Your task to perform on an android device: turn off priority inbox in the gmail app Image 0: 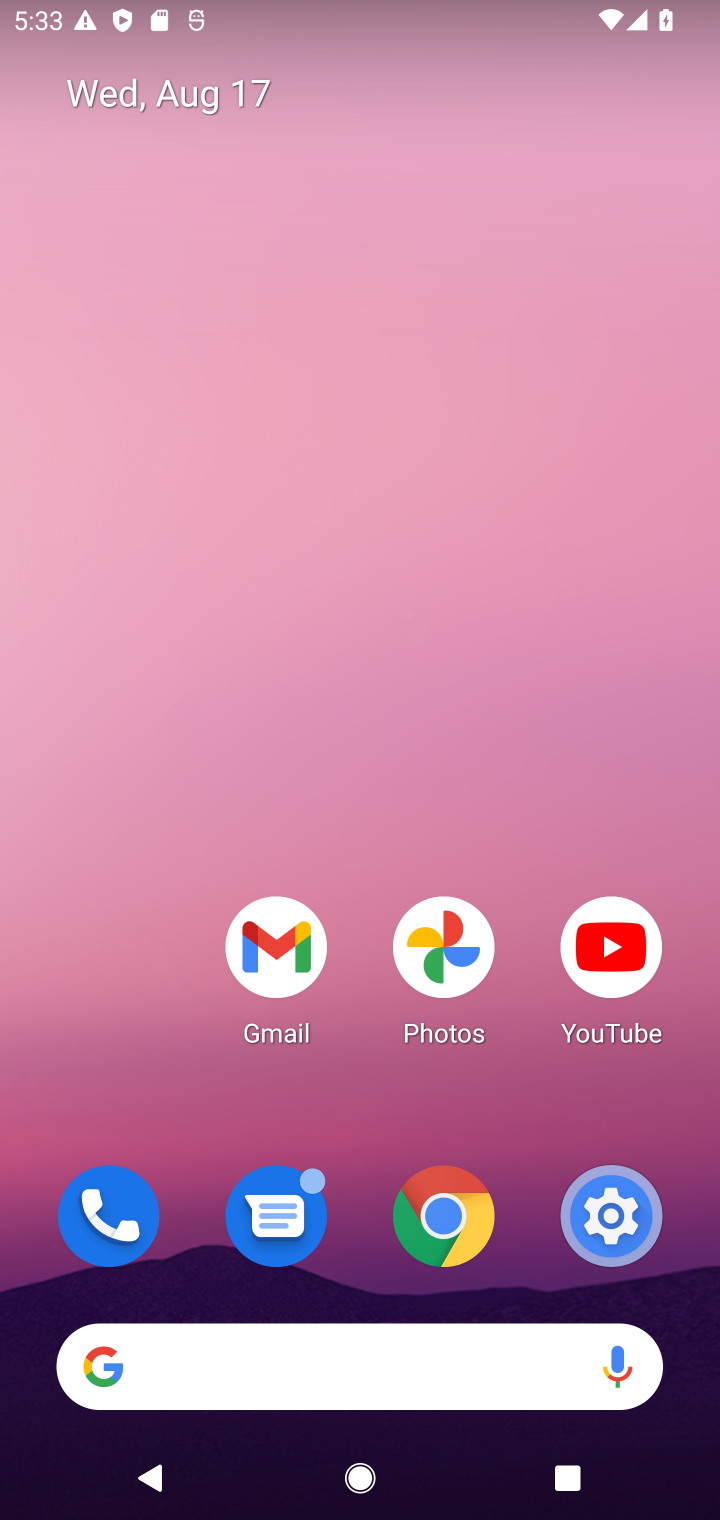
Step 0: drag from (389, 1294) to (371, 0)
Your task to perform on an android device: turn off priority inbox in the gmail app Image 1: 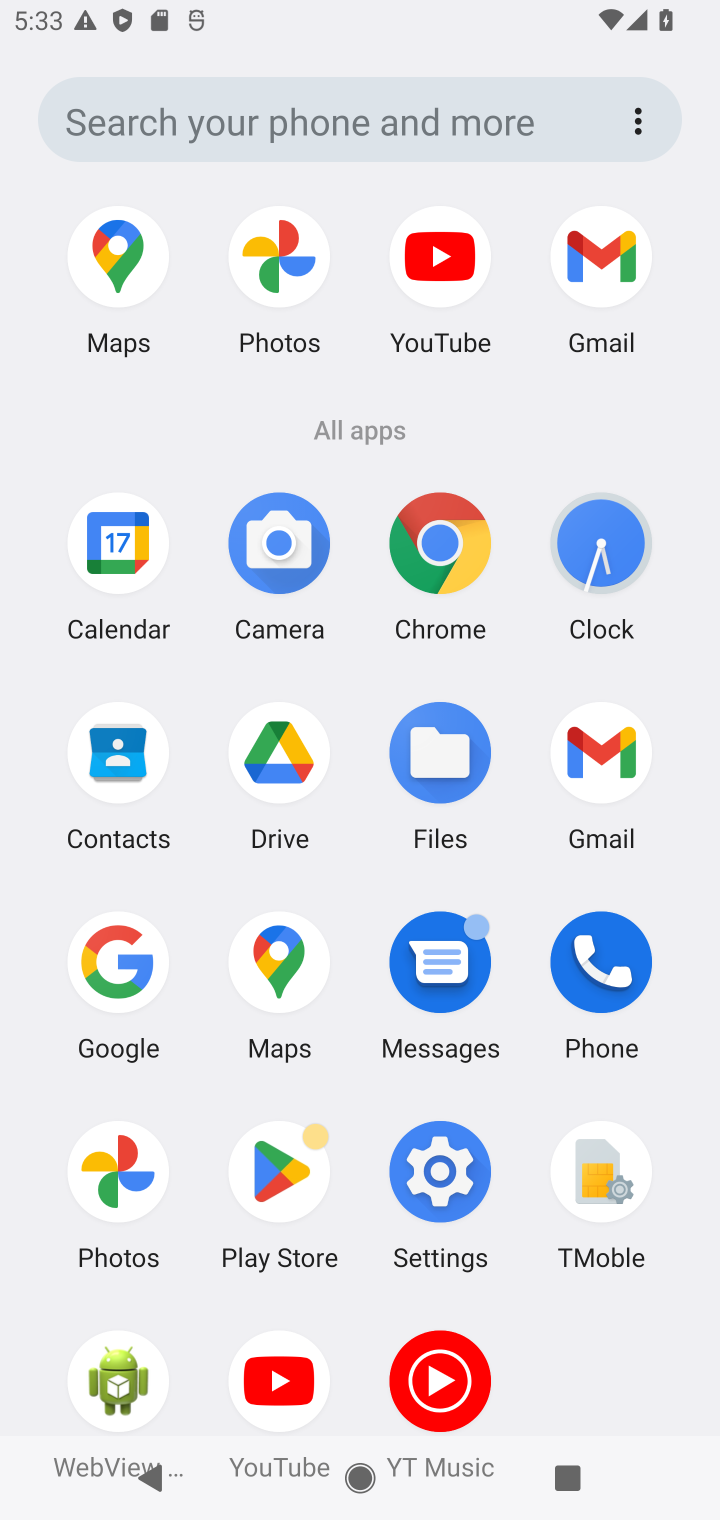
Step 1: click (605, 733)
Your task to perform on an android device: turn off priority inbox in the gmail app Image 2: 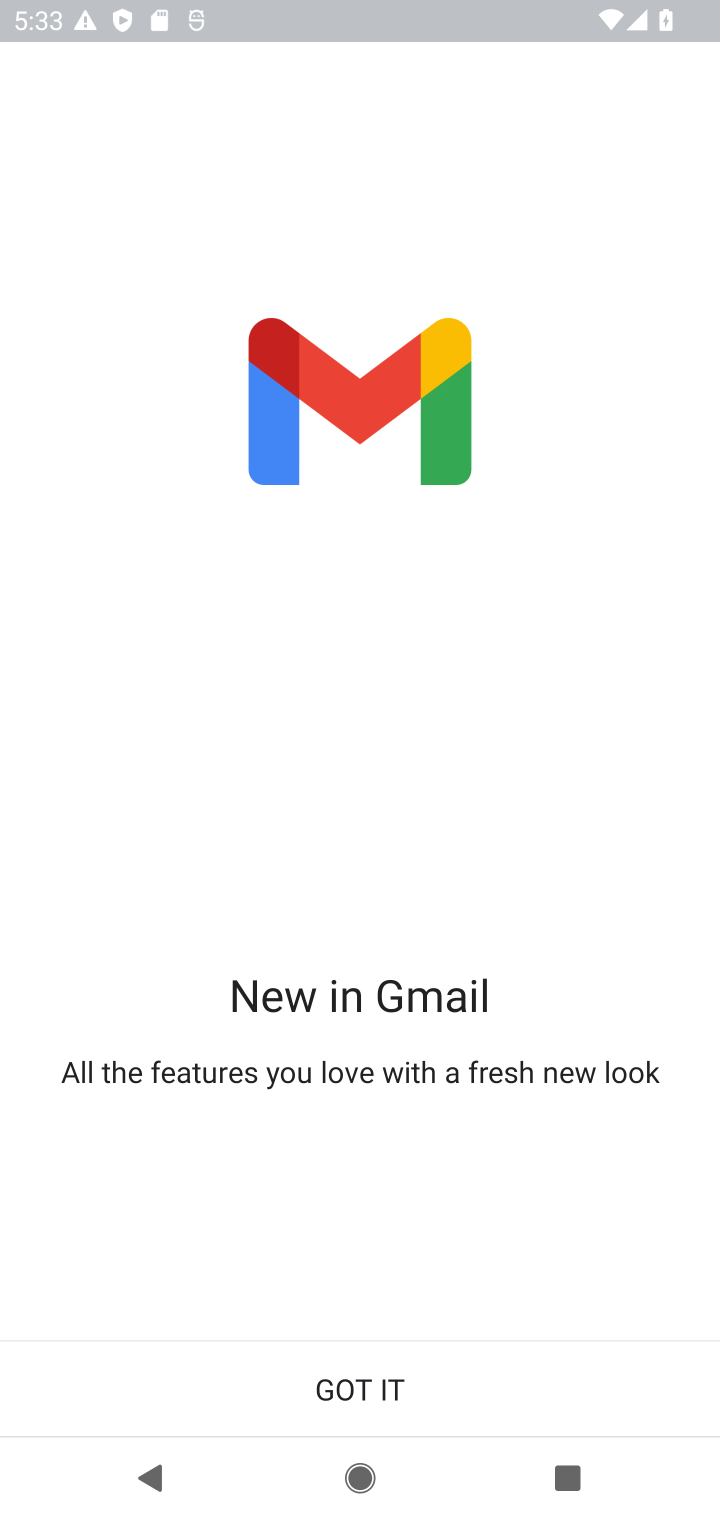
Step 2: click (356, 1389)
Your task to perform on an android device: turn off priority inbox in the gmail app Image 3: 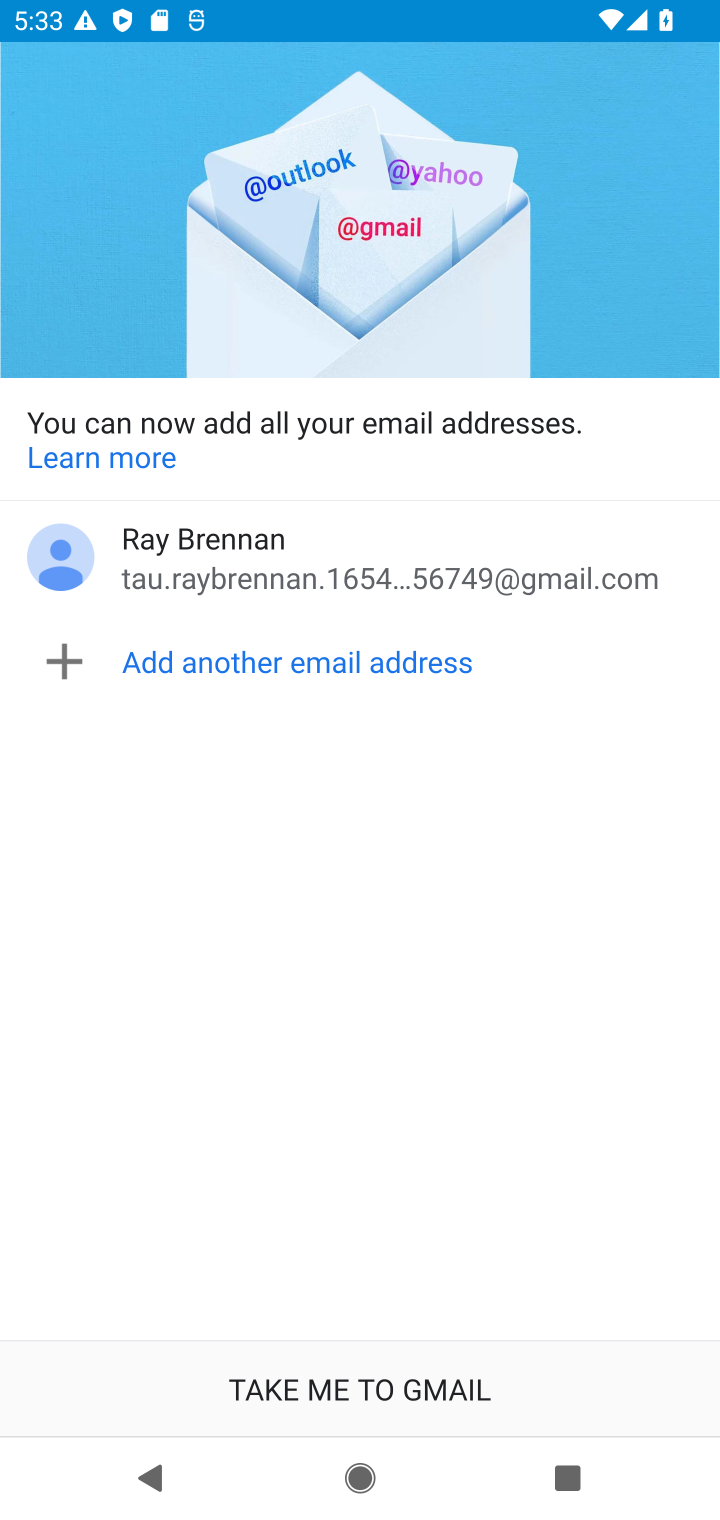
Step 3: click (333, 1373)
Your task to perform on an android device: turn off priority inbox in the gmail app Image 4: 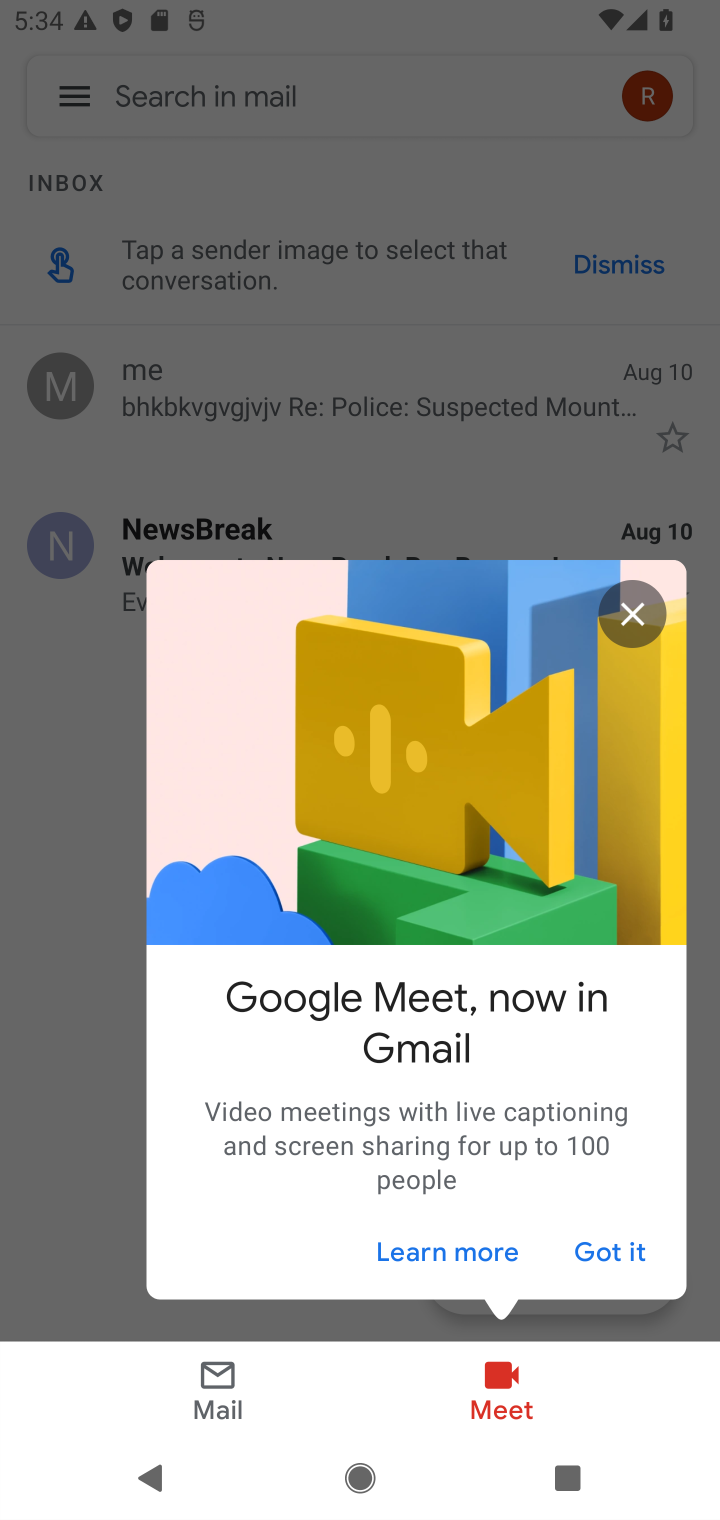
Step 4: click (640, 606)
Your task to perform on an android device: turn off priority inbox in the gmail app Image 5: 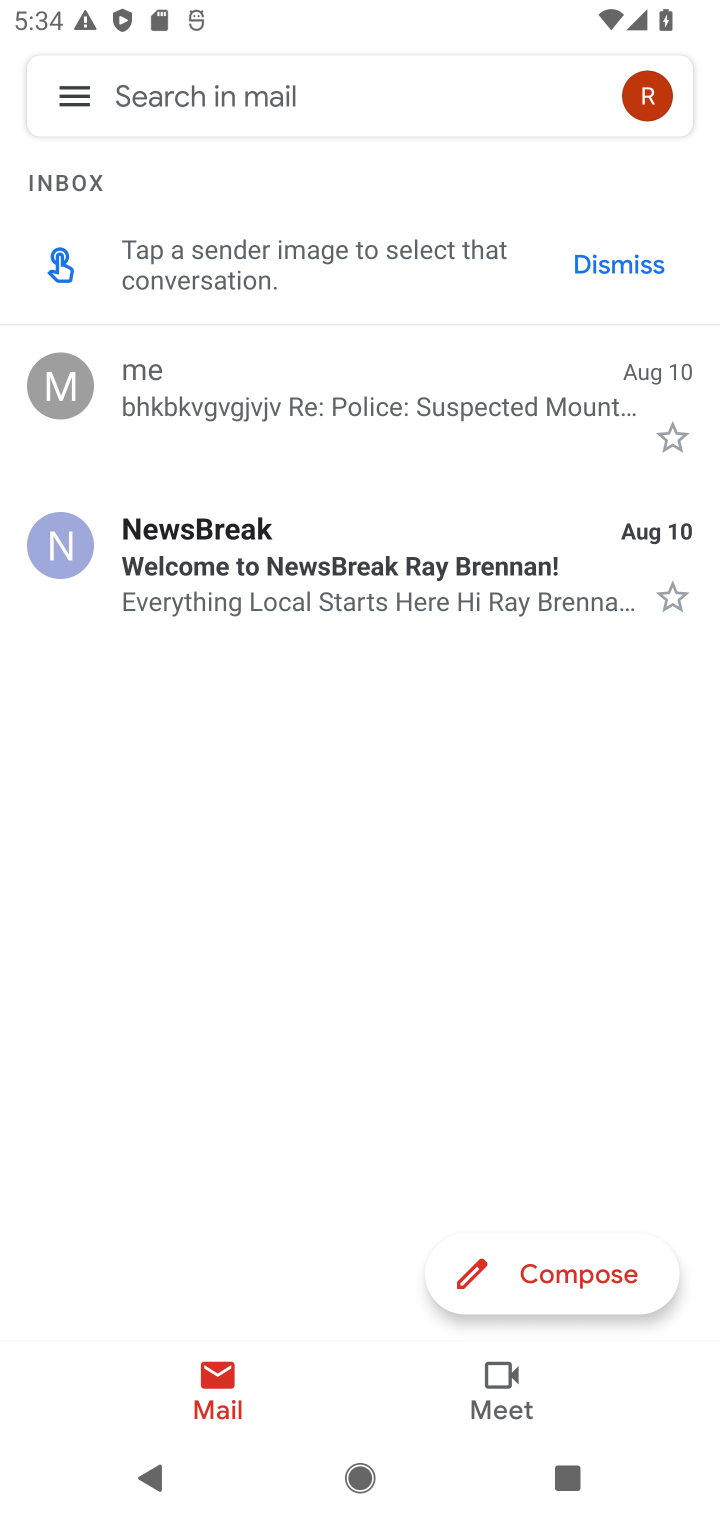
Step 5: click (53, 89)
Your task to perform on an android device: turn off priority inbox in the gmail app Image 6: 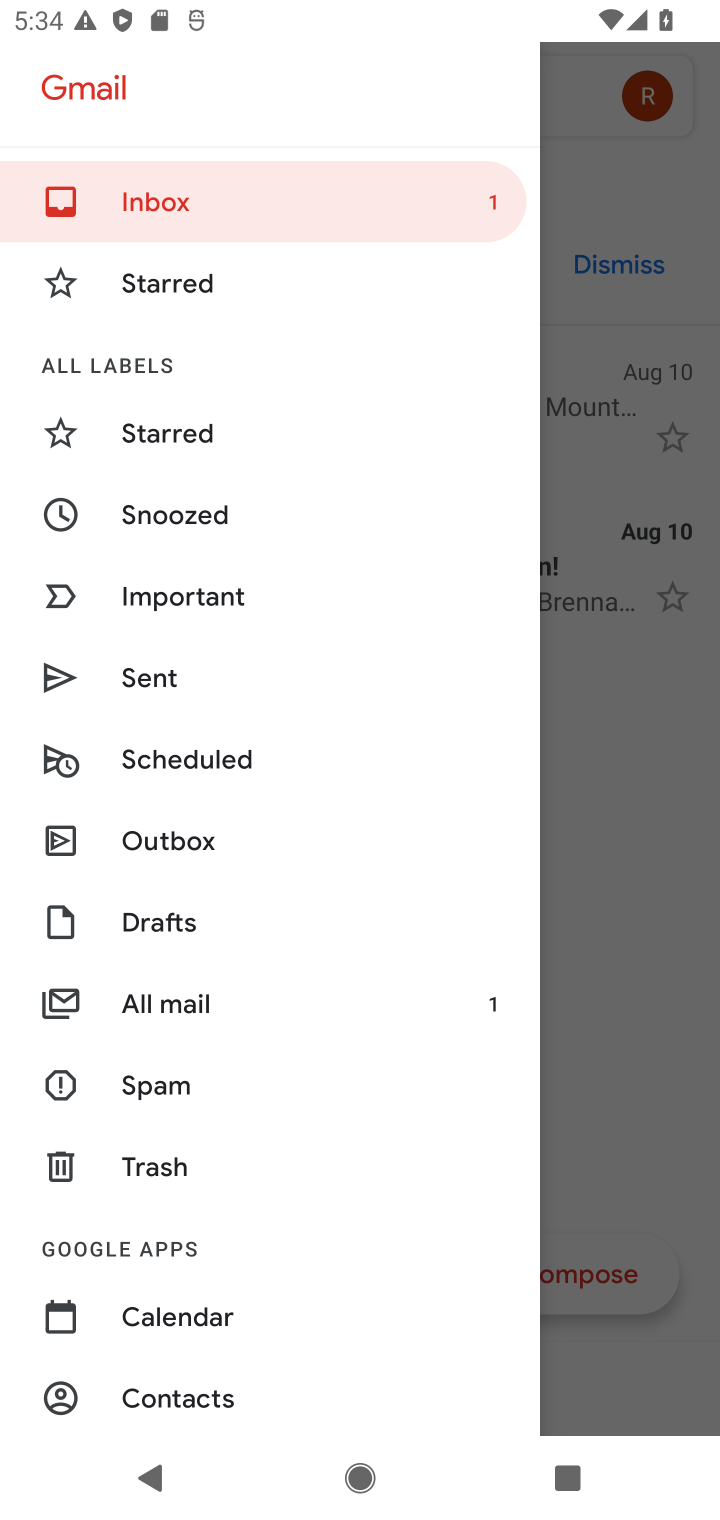
Step 6: drag from (175, 1006) to (227, 241)
Your task to perform on an android device: turn off priority inbox in the gmail app Image 7: 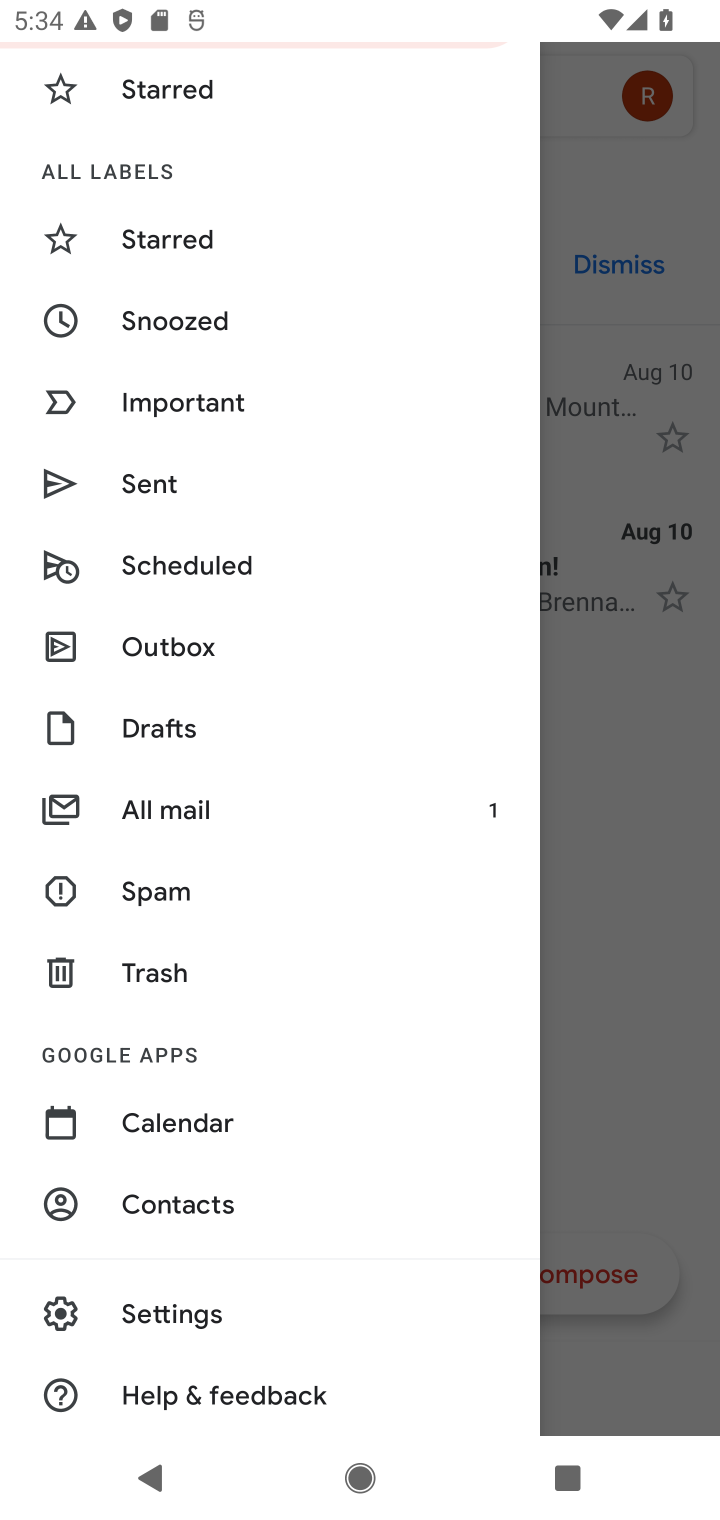
Step 7: click (181, 1301)
Your task to perform on an android device: turn off priority inbox in the gmail app Image 8: 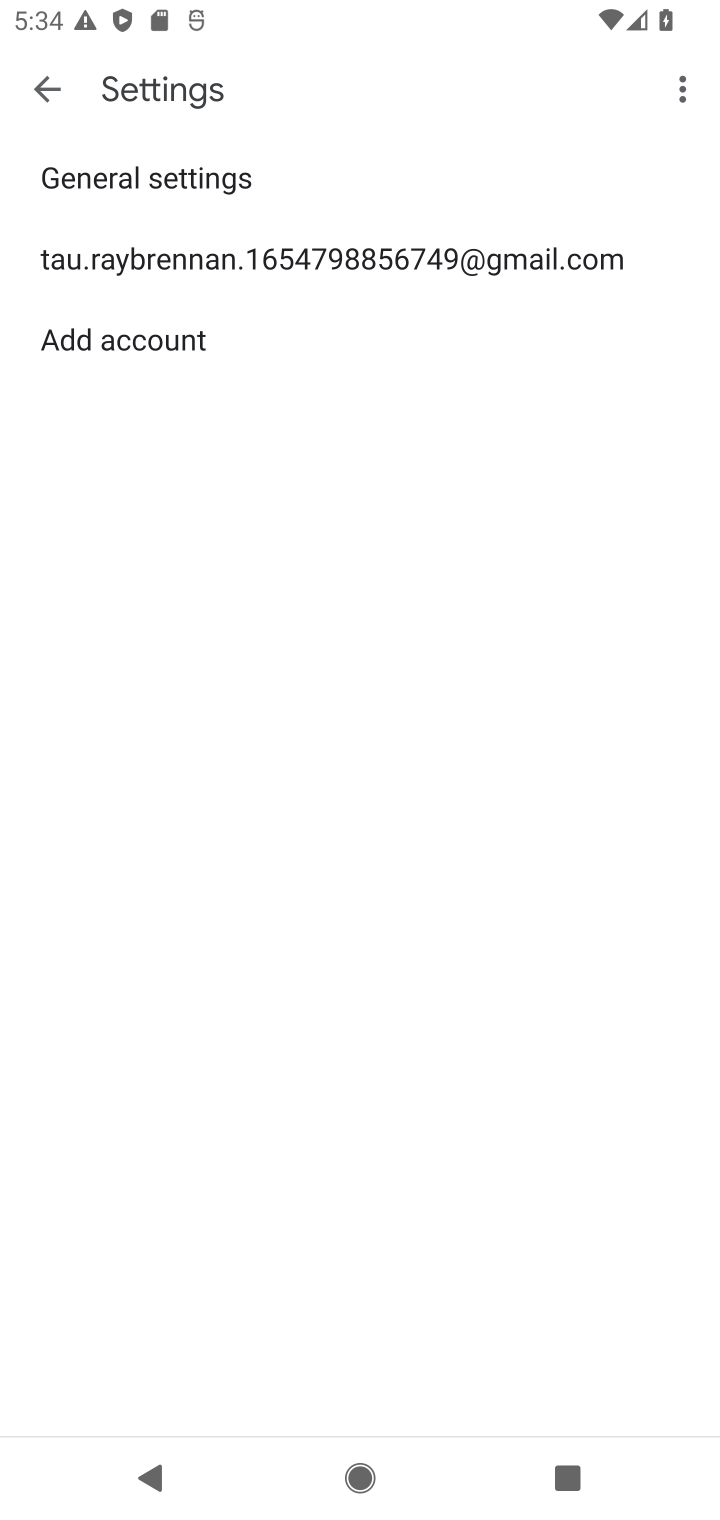
Step 8: click (334, 262)
Your task to perform on an android device: turn off priority inbox in the gmail app Image 9: 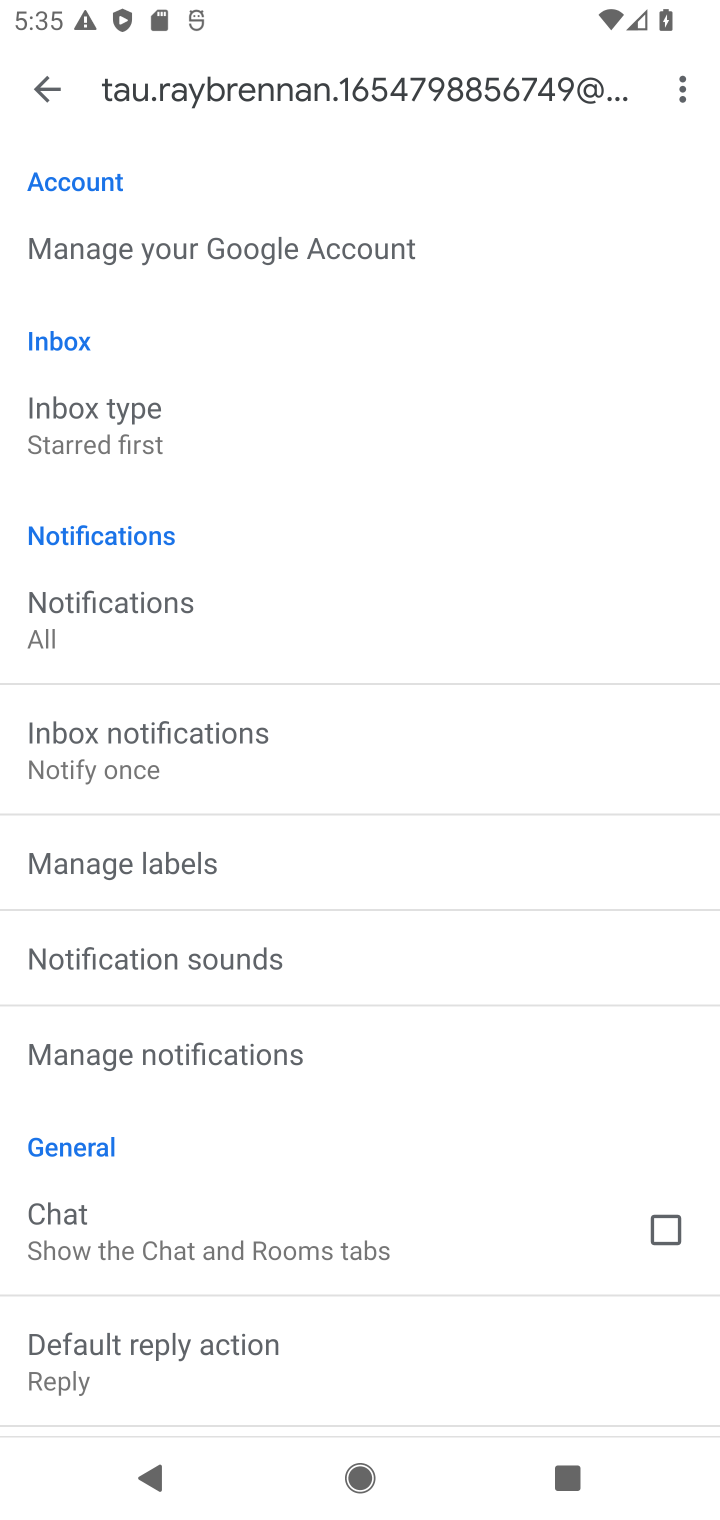
Step 9: click (130, 432)
Your task to perform on an android device: turn off priority inbox in the gmail app Image 10: 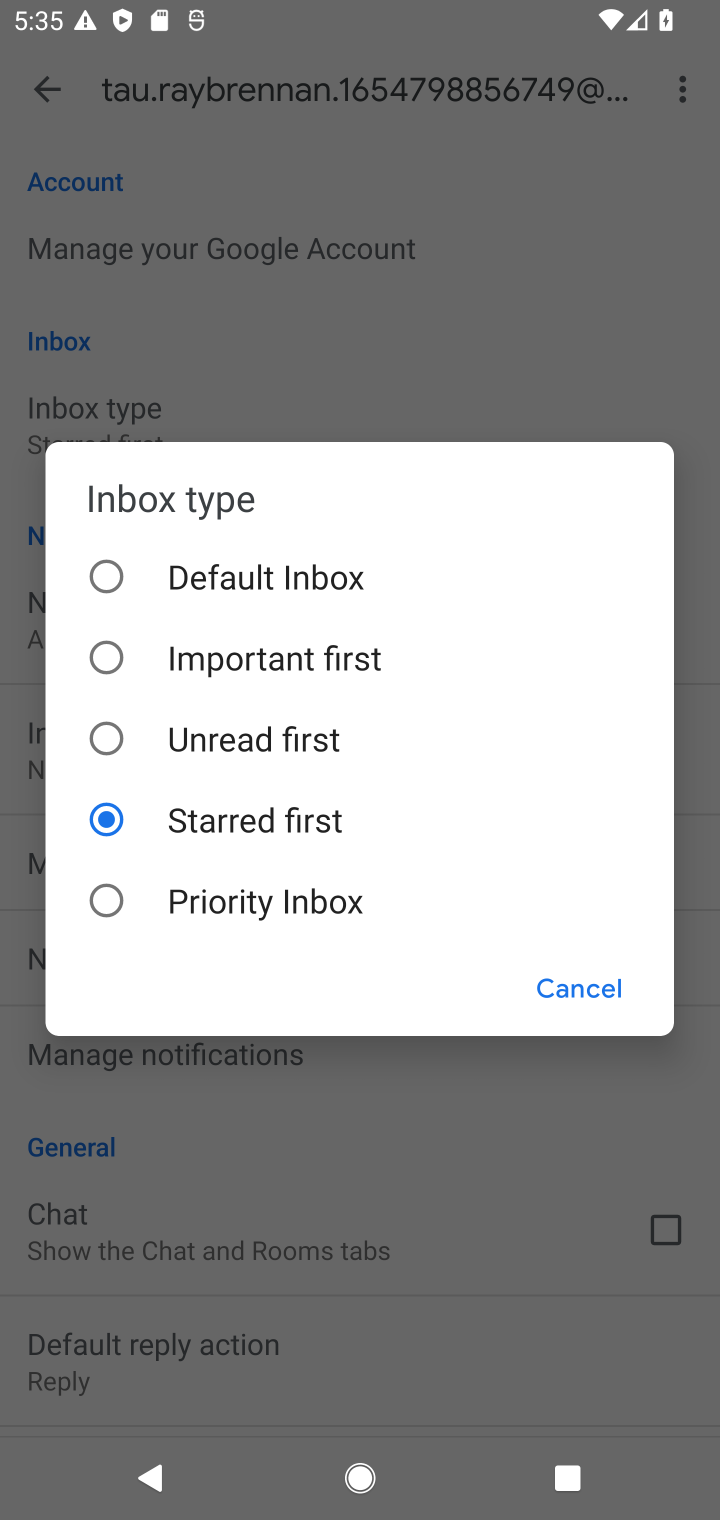
Step 10: click (203, 873)
Your task to perform on an android device: turn off priority inbox in the gmail app Image 11: 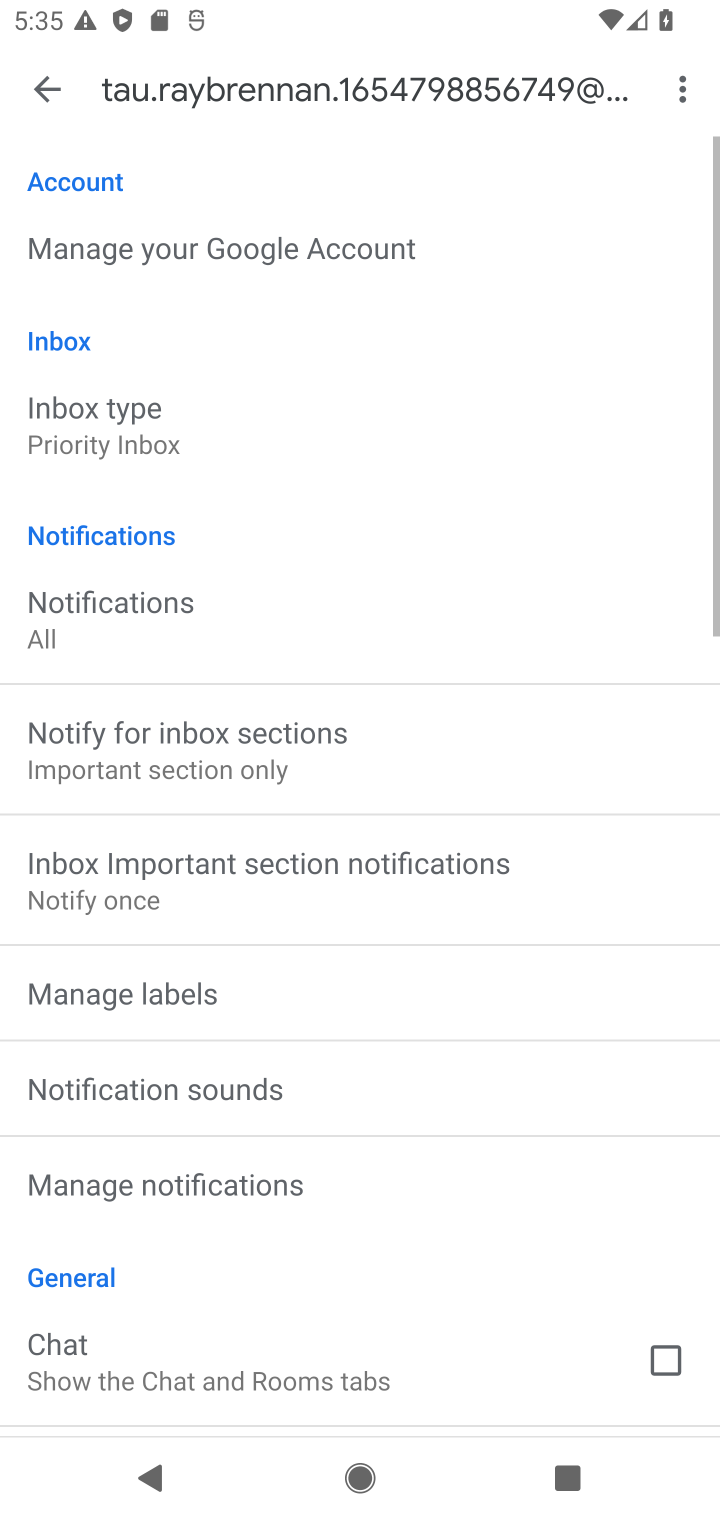
Step 11: click (167, 431)
Your task to perform on an android device: turn off priority inbox in the gmail app Image 12: 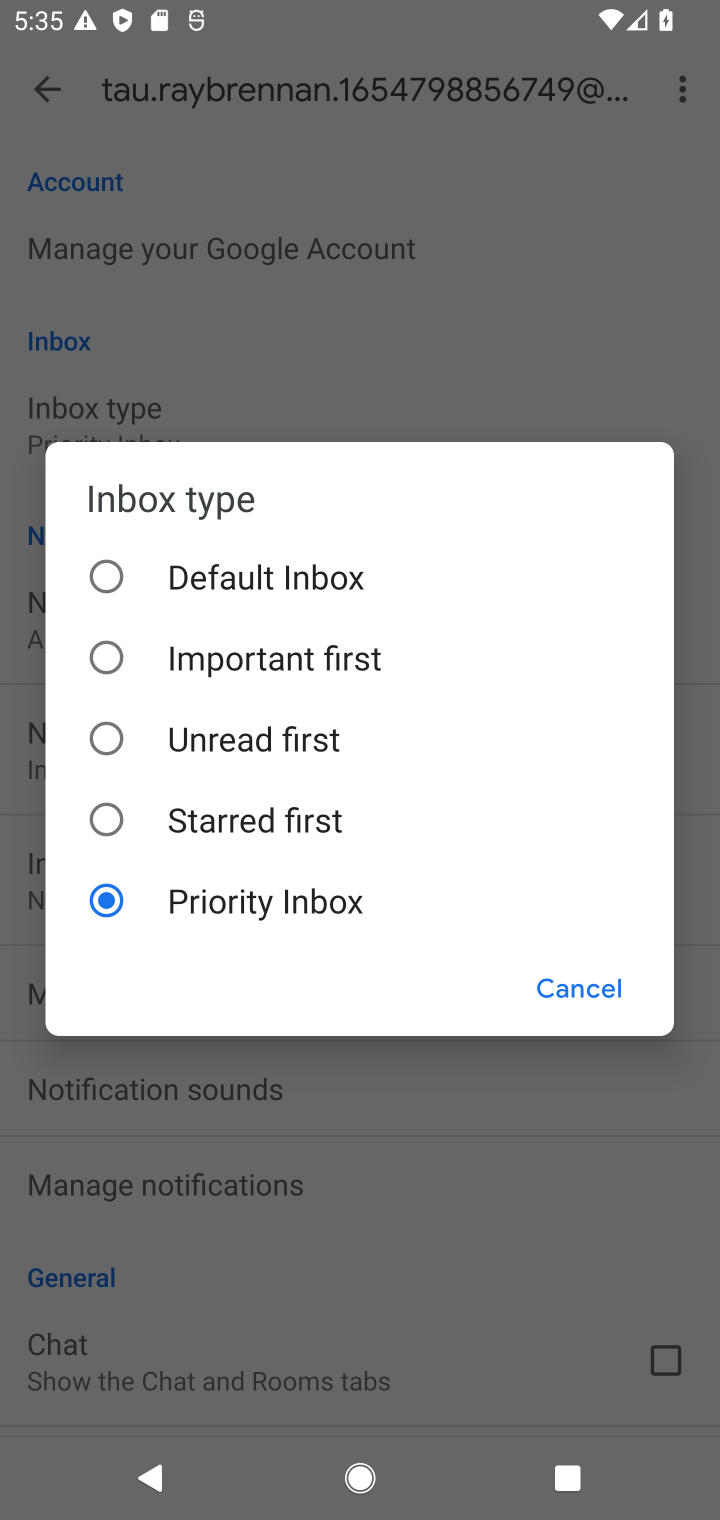
Step 12: click (241, 557)
Your task to perform on an android device: turn off priority inbox in the gmail app Image 13: 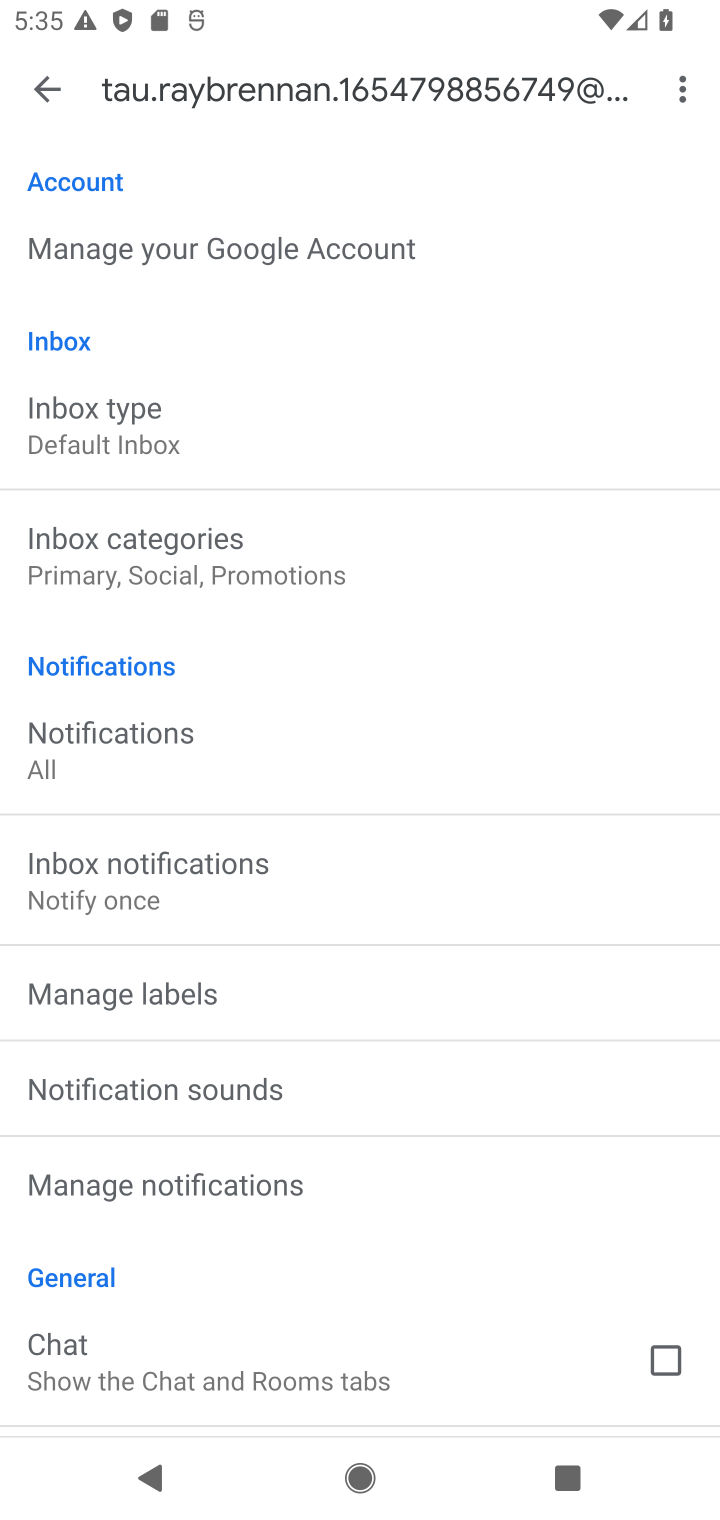
Step 13: task complete